Your task to perform on an android device: turn off data saver in the chrome app Image 0: 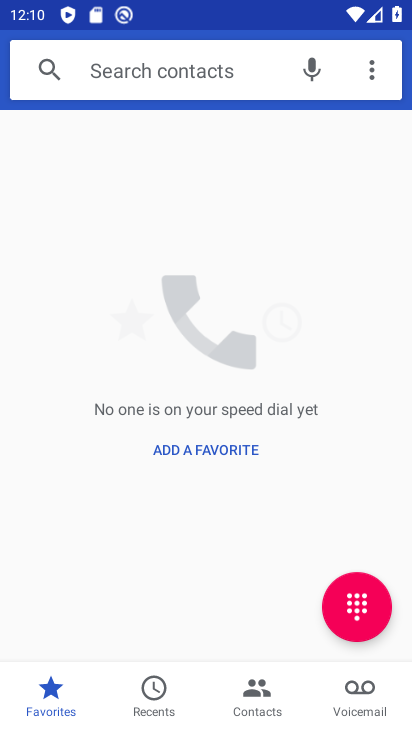
Step 0: press home button
Your task to perform on an android device: turn off data saver in the chrome app Image 1: 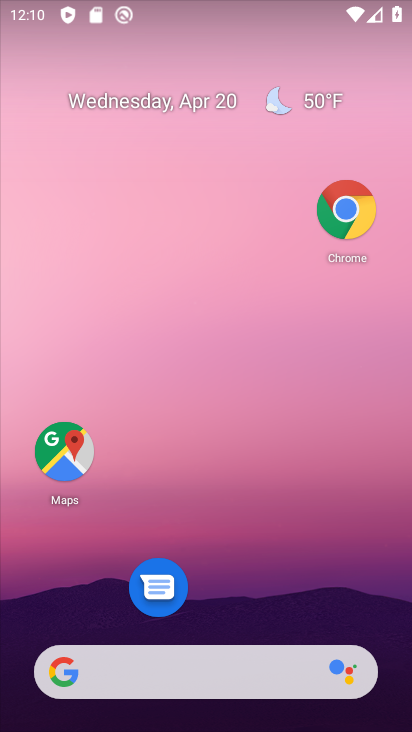
Step 1: click (349, 214)
Your task to perform on an android device: turn off data saver in the chrome app Image 2: 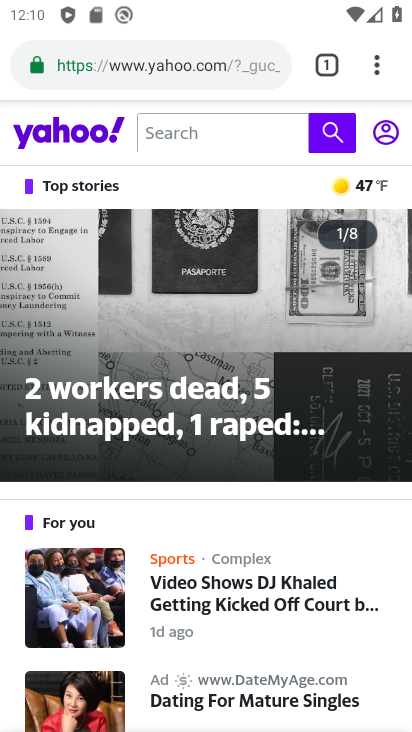
Step 2: click (368, 56)
Your task to perform on an android device: turn off data saver in the chrome app Image 3: 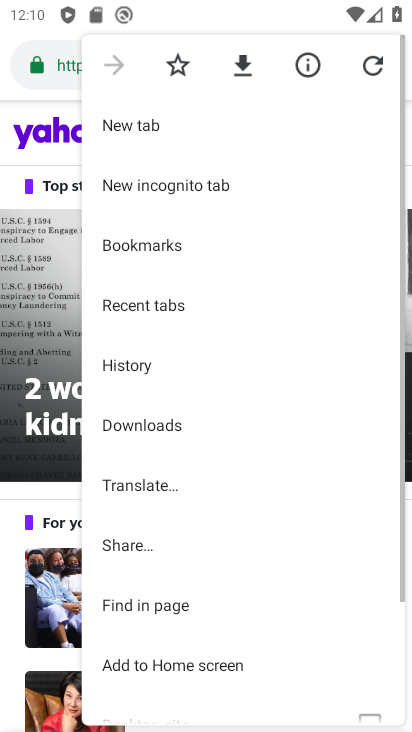
Step 3: drag from (210, 611) to (270, 173)
Your task to perform on an android device: turn off data saver in the chrome app Image 4: 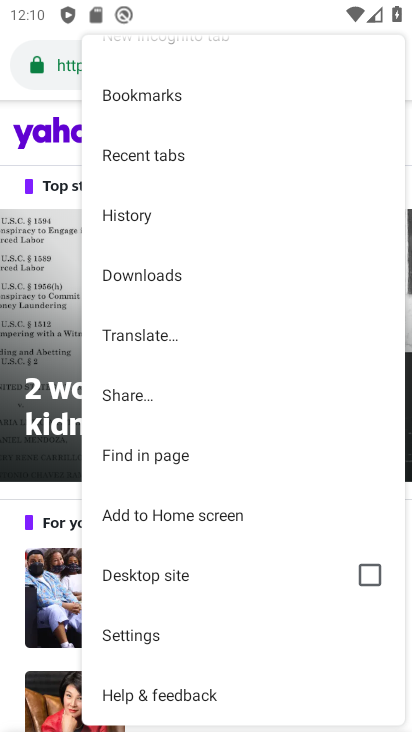
Step 4: click (144, 638)
Your task to perform on an android device: turn off data saver in the chrome app Image 5: 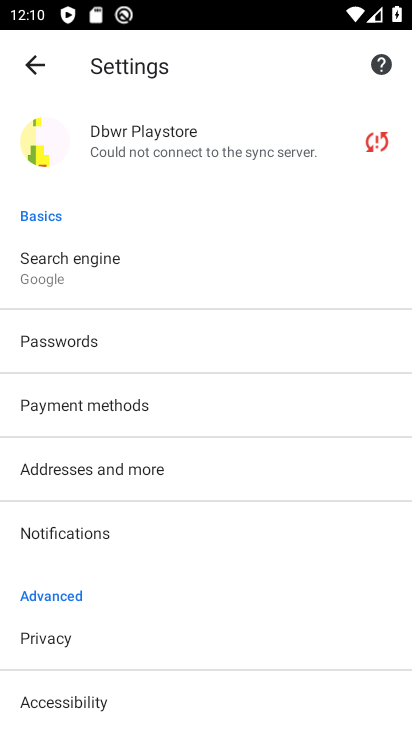
Step 5: drag from (105, 589) to (145, 318)
Your task to perform on an android device: turn off data saver in the chrome app Image 6: 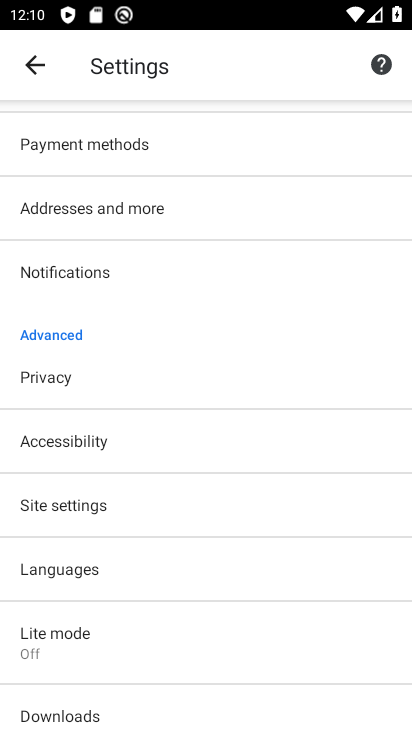
Step 6: click (84, 642)
Your task to perform on an android device: turn off data saver in the chrome app Image 7: 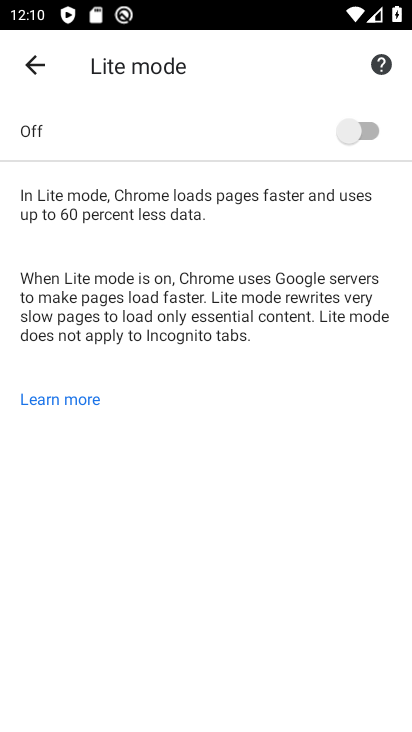
Step 7: task complete